Your task to perform on an android device: change your default location settings in chrome Image 0: 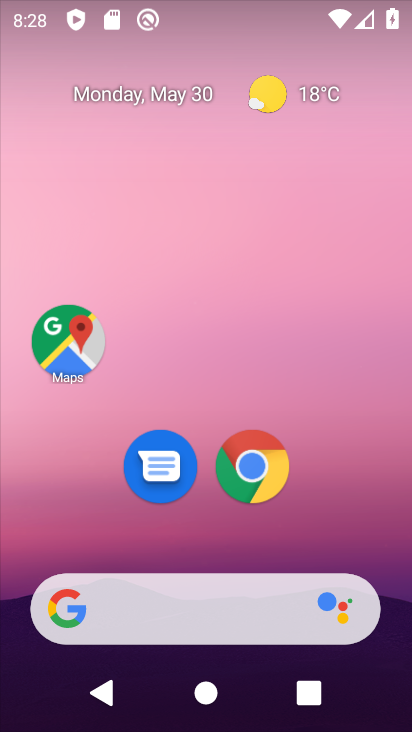
Step 0: drag from (332, 544) to (371, 102)
Your task to perform on an android device: change your default location settings in chrome Image 1: 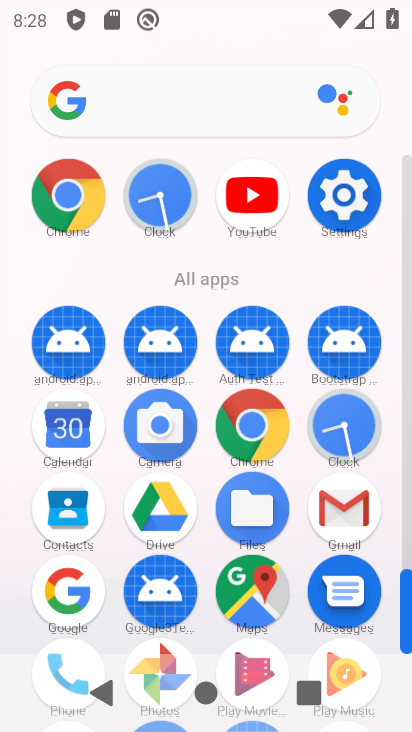
Step 1: click (238, 413)
Your task to perform on an android device: change your default location settings in chrome Image 2: 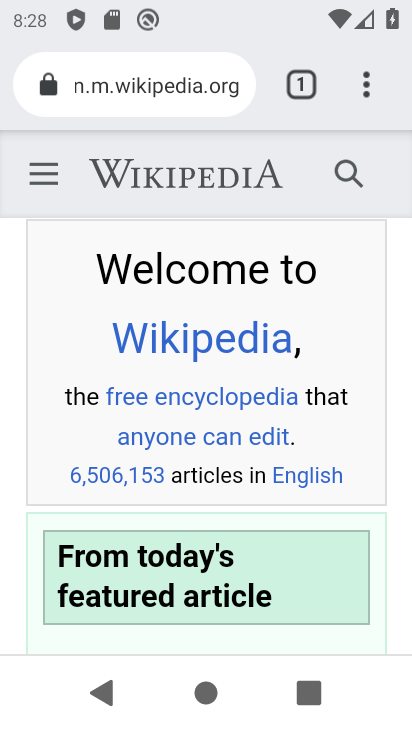
Step 2: drag from (368, 83) to (135, 515)
Your task to perform on an android device: change your default location settings in chrome Image 3: 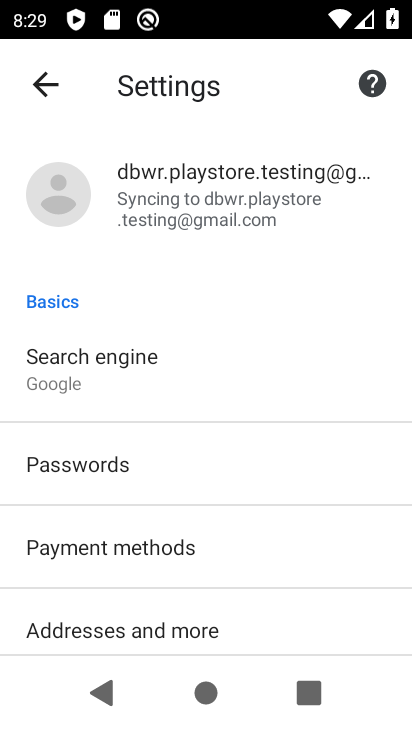
Step 3: drag from (231, 624) to (267, 162)
Your task to perform on an android device: change your default location settings in chrome Image 4: 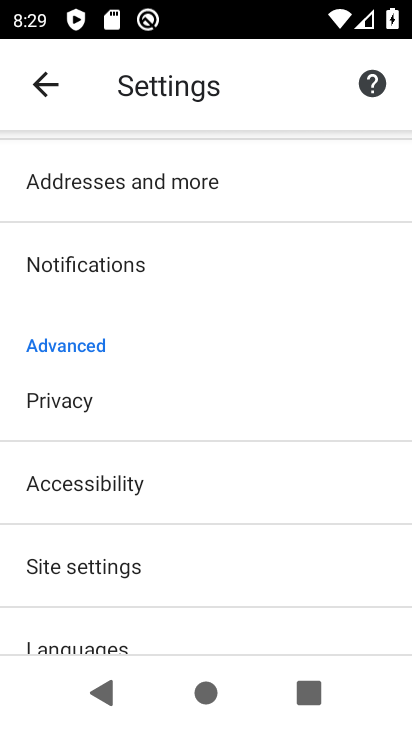
Step 4: drag from (152, 603) to (171, 400)
Your task to perform on an android device: change your default location settings in chrome Image 5: 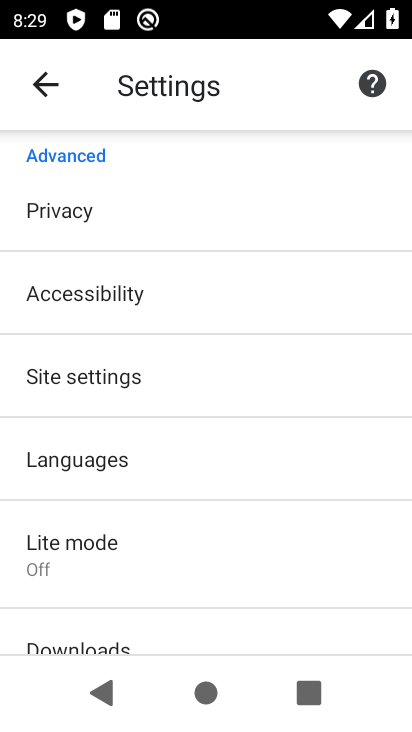
Step 5: click (68, 360)
Your task to perform on an android device: change your default location settings in chrome Image 6: 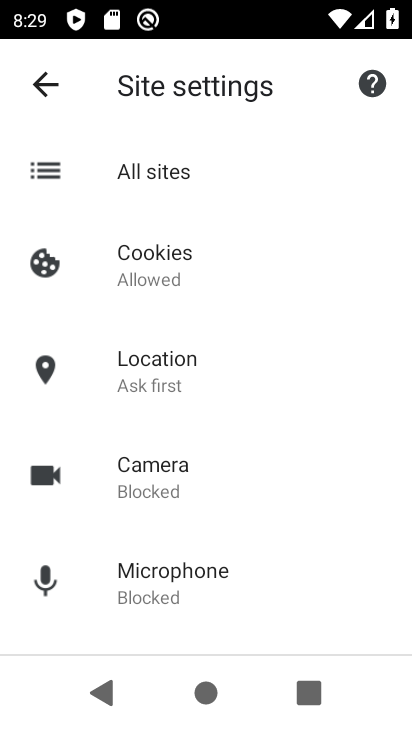
Step 6: click (130, 354)
Your task to perform on an android device: change your default location settings in chrome Image 7: 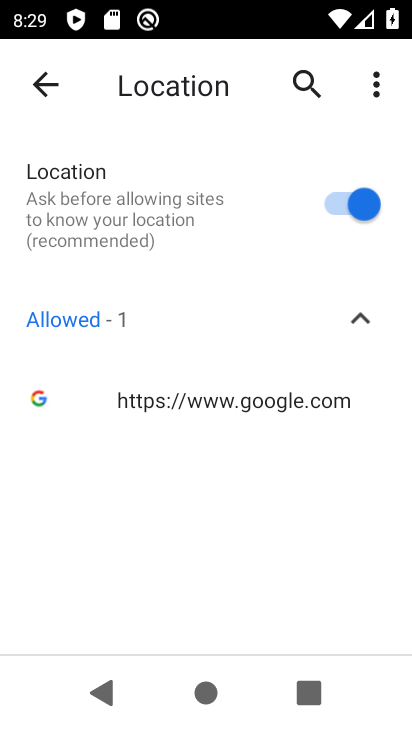
Step 7: click (330, 196)
Your task to perform on an android device: change your default location settings in chrome Image 8: 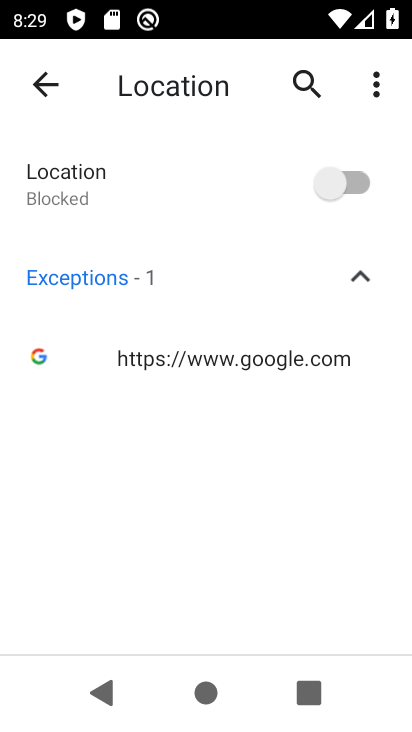
Step 8: task complete